Your task to perform on an android device: Open calendar and show me the second week of next month Image 0: 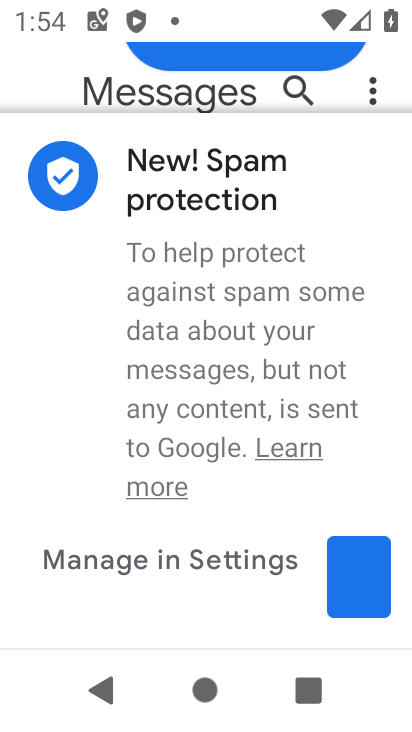
Step 0: press home button
Your task to perform on an android device: Open calendar and show me the second week of next month Image 1: 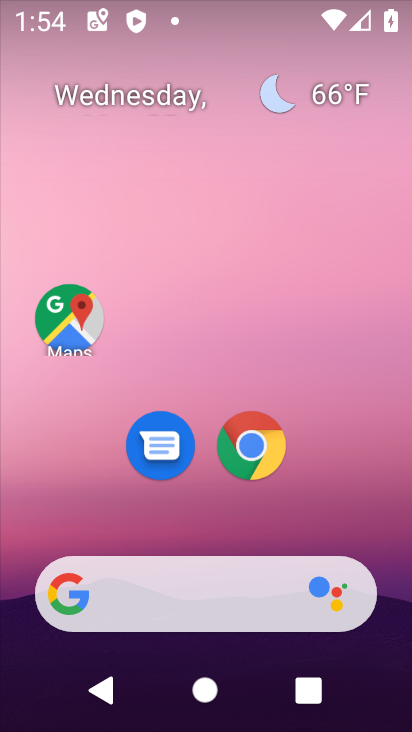
Step 1: drag from (54, 458) to (185, 116)
Your task to perform on an android device: Open calendar and show me the second week of next month Image 2: 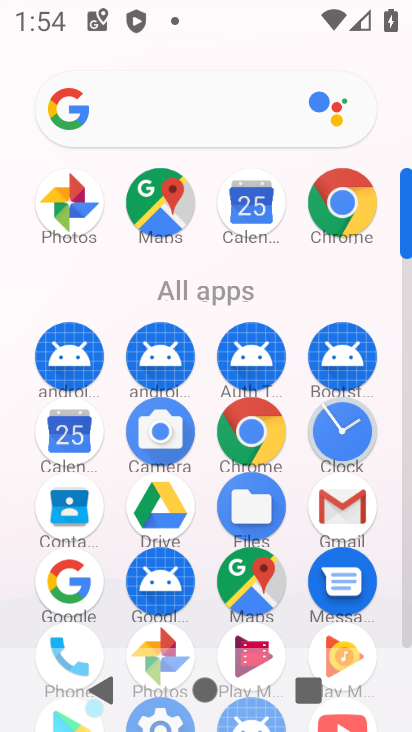
Step 2: click (46, 430)
Your task to perform on an android device: Open calendar and show me the second week of next month Image 3: 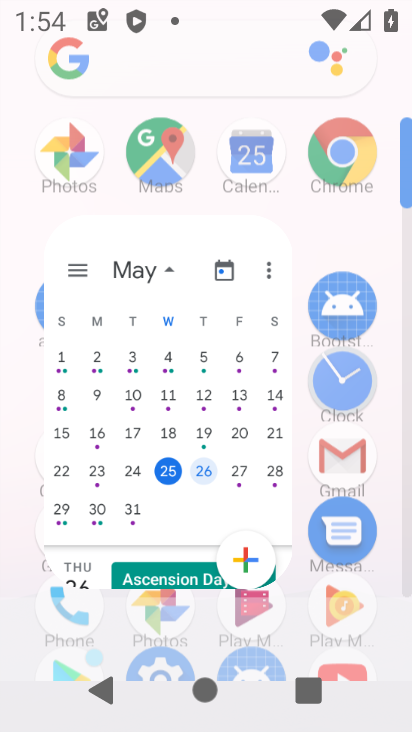
Step 3: click (267, 372)
Your task to perform on an android device: Open calendar and show me the second week of next month Image 4: 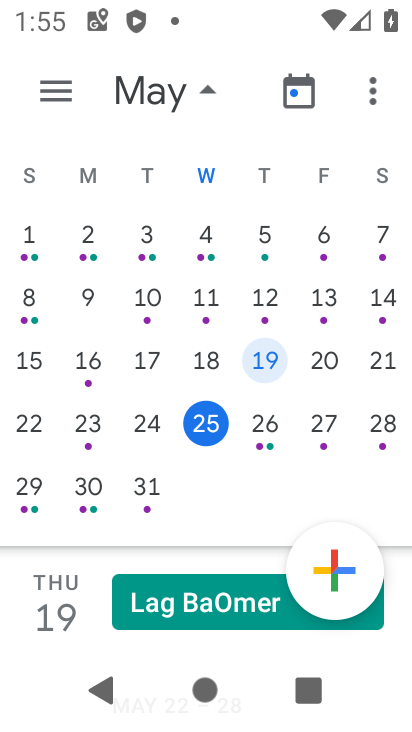
Step 4: drag from (282, 327) to (39, 292)
Your task to perform on an android device: Open calendar and show me the second week of next month Image 5: 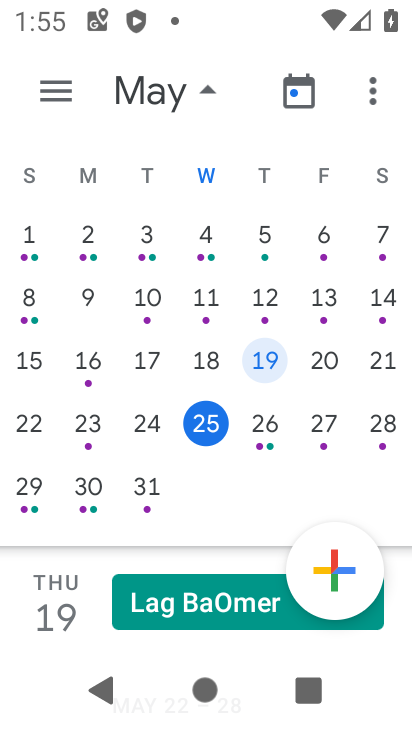
Step 5: drag from (349, 299) to (7, 242)
Your task to perform on an android device: Open calendar and show me the second week of next month Image 6: 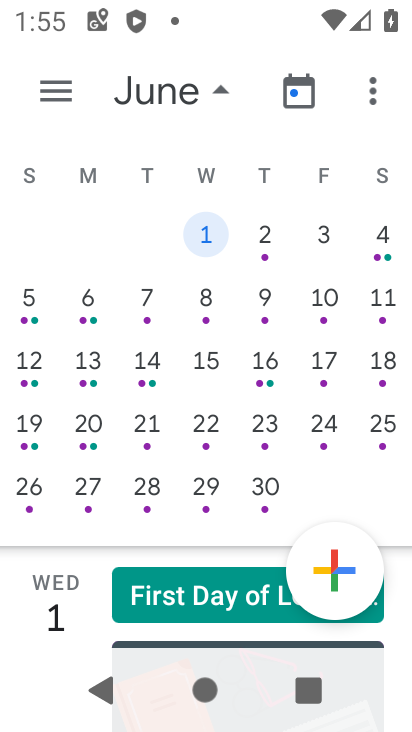
Step 6: click (85, 309)
Your task to perform on an android device: Open calendar and show me the second week of next month Image 7: 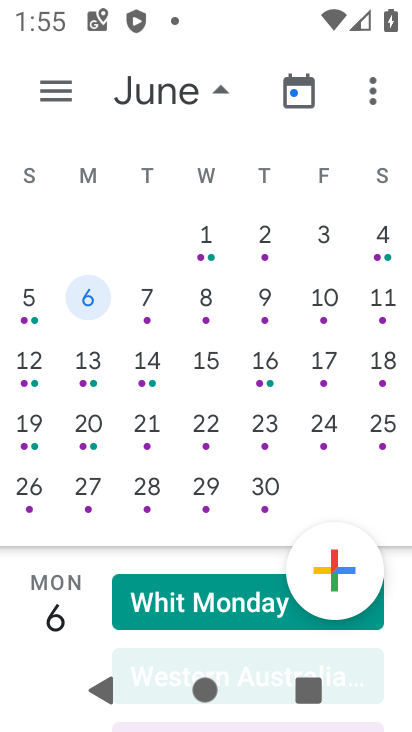
Step 7: click (136, 304)
Your task to perform on an android device: Open calendar and show me the second week of next month Image 8: 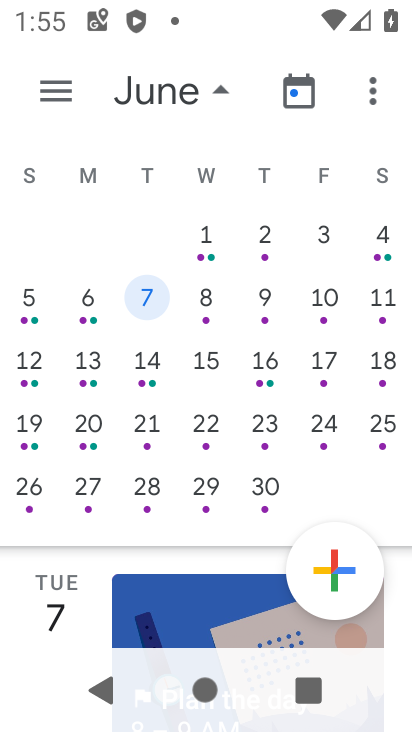
Step 8: click (205, 301)
Your task to perform on an android device: Open calendar and show me the second week of next month Image 9: 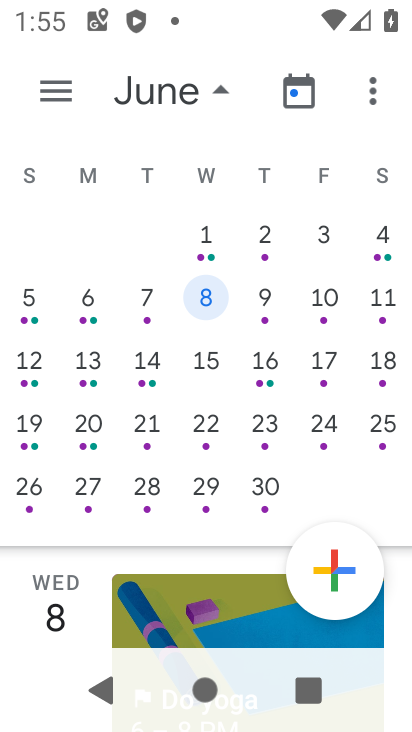
Step 9: click (252, 293)
Your task to perform on an android device: Open calendar and show me the second week of next month Image 10: 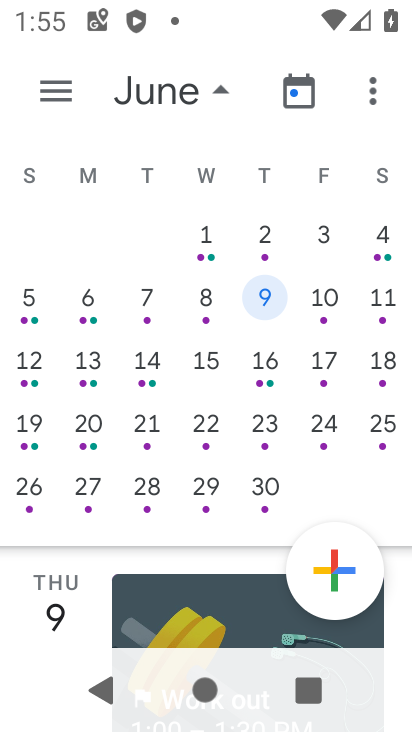
Step 10: click (326, 299)
Your task to perform on an android device: Open calendar and show me the second week of next month Image 11: 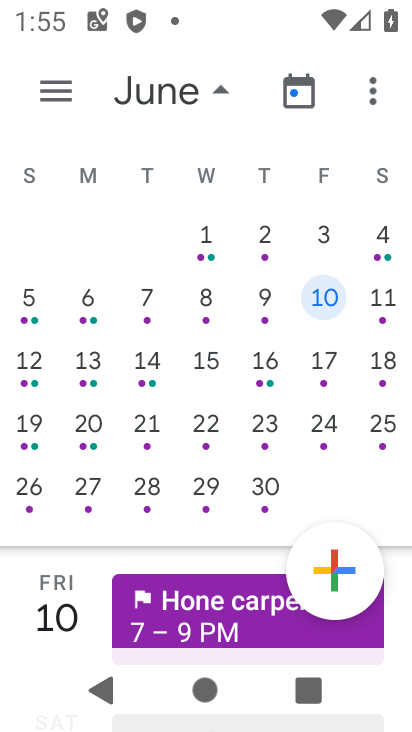
Step 11: task complete